Your task to perform on an android device: change timer sound Image 0: 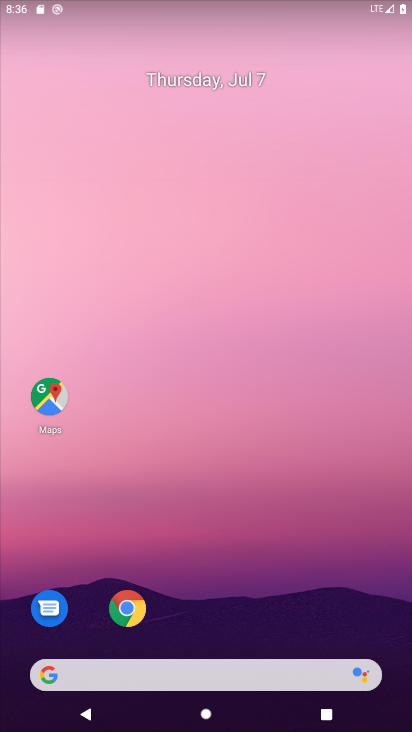
Step 0: drag from (326, 598) to (351, 65)
Your task to perform on an android device: change timer sound Image 1: 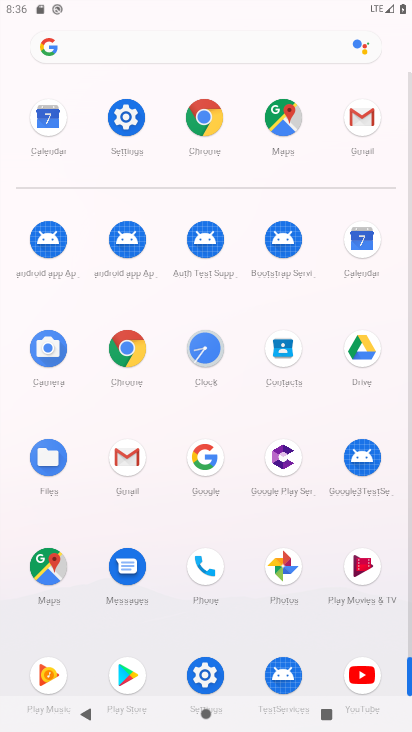
Step 1: click (213, 354)
Your task to perform on an android device: change timer sound Image 2: 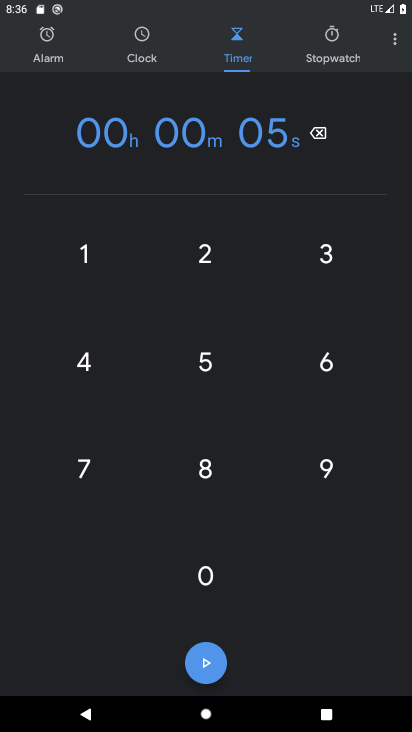
Step 2: click (396, 55)
Your task to perform on an android device: change timer sound Image 3: 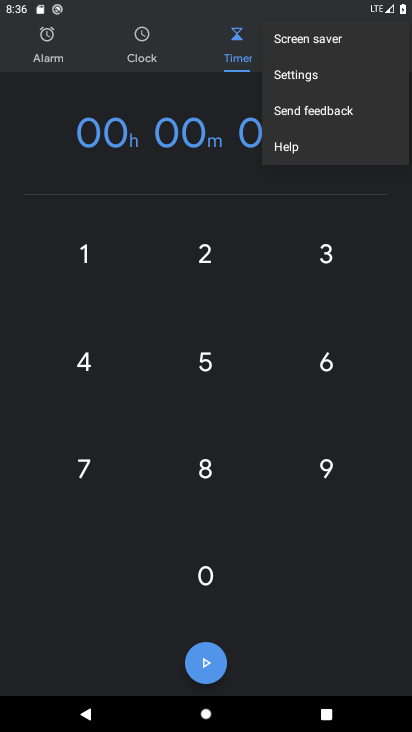
Step 3: click (332, 81)
Your task to perform on an android device: change timer sound Image 4: 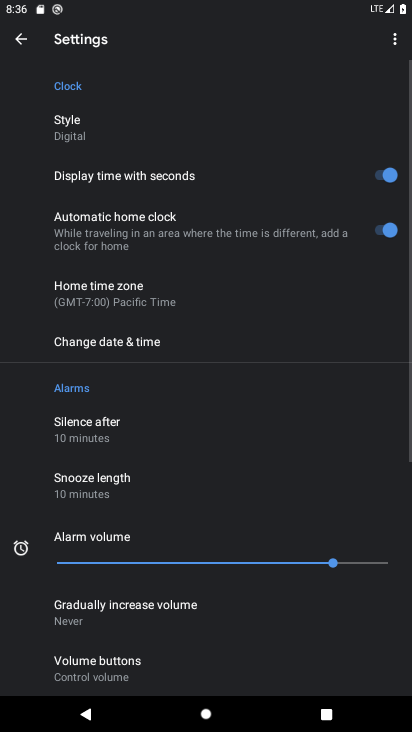
Step 4: drag from (287, 614) to (290, 474)
Your task to perform on an android device: change timer sound Image 5: 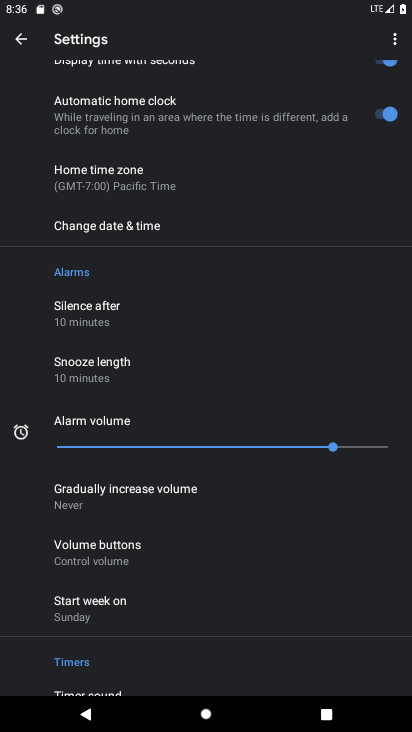
Step 5: drag from (283, 558) to (277, 420)
Your task to perform on an android device: change timer sound Image 6: 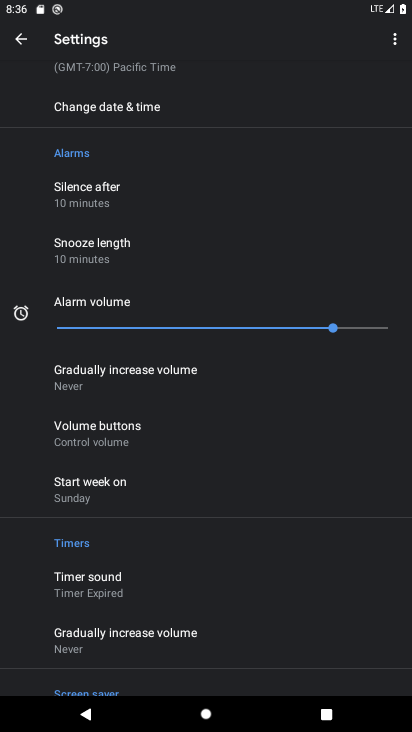
Step 6: drag from (286, 526) to (289, 387)
Your task to perform on an android device: change timer sound Image 7: 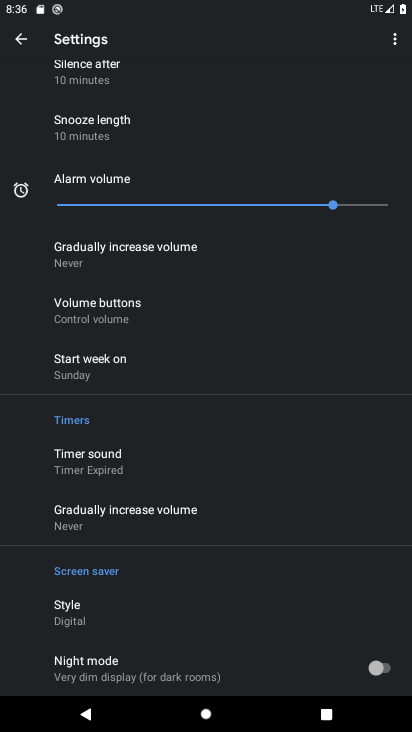
Step 7: drag from (319, 566) to (314, 411)
Your task to perform on an android device: change timer sound Image 8: 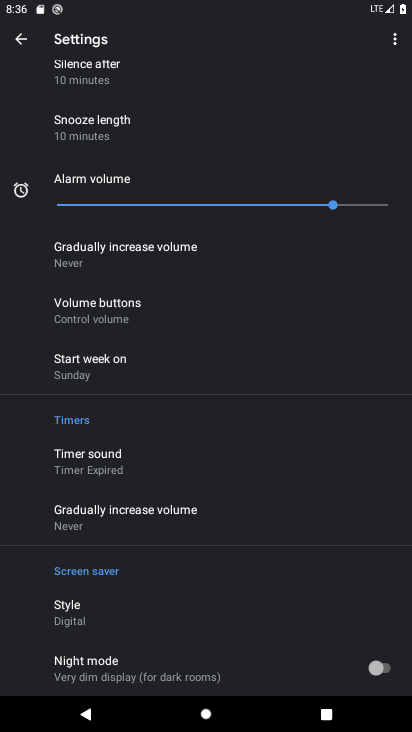
Step 8: click (170, 473)
Your task to perform on an android device: change timer sound Image 9: 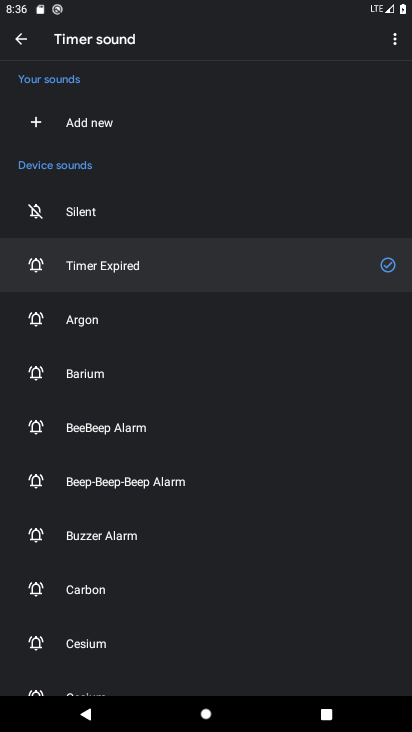
Step 9: click (140, 427)
Your task to perform on an android device: change timer sound Image 10: 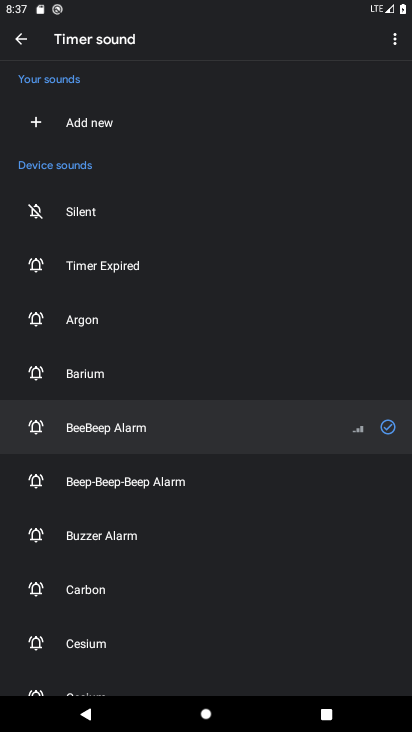
Step 10: task complete